Your task to perform on an android device: Show me recent news Image 0: 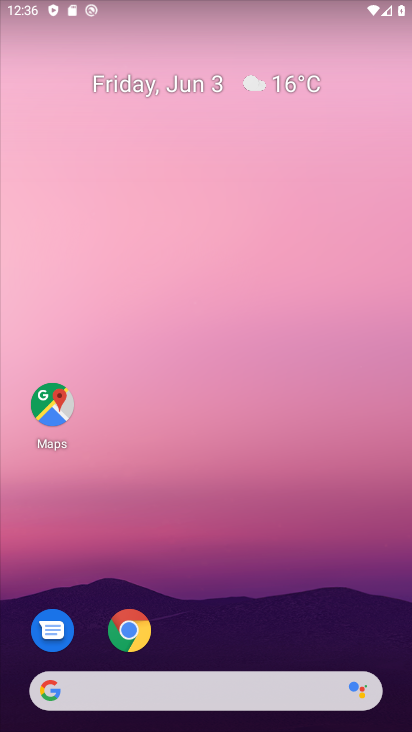
Step 0: click (122, 703)
Your task to perform on an android device: Show me recent news Image 1: 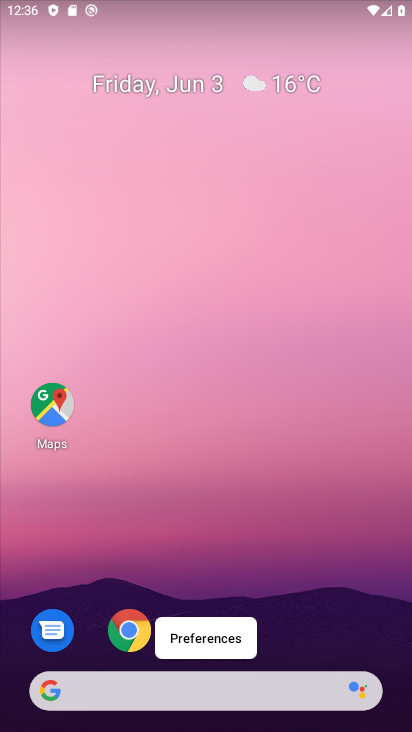
Step 1: click (121, 694)
Your task to perform on an android device: Show me recent news Image 2: 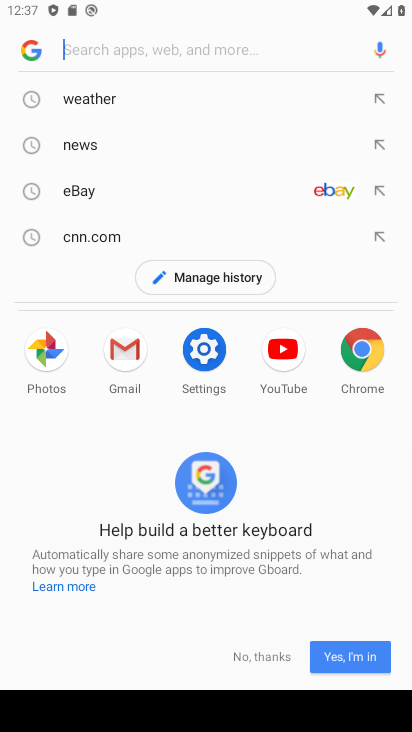
Step 2: click (244, 654)
Your task to perform on an android device: Show me recent news Image 3: 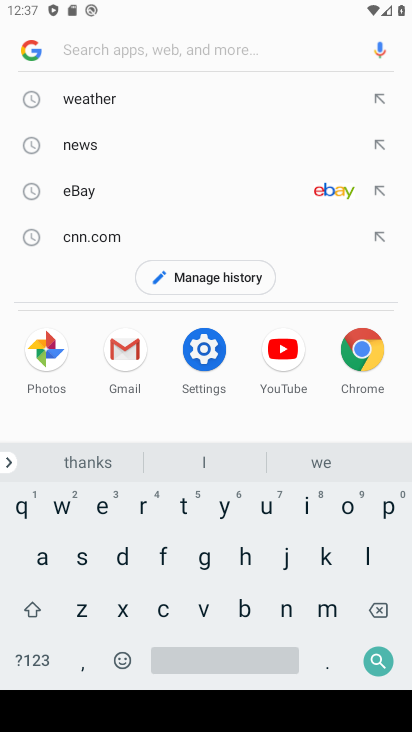
Step 3: click (144, 511)
Your task to perform on an android device: Show me recent news Image 4: 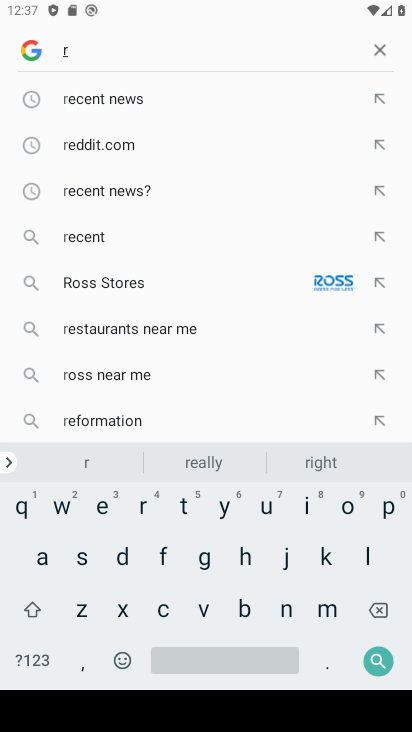
Step 4: click (91, 90)
Your task to perform on an android device: Show me recent news Image 5: 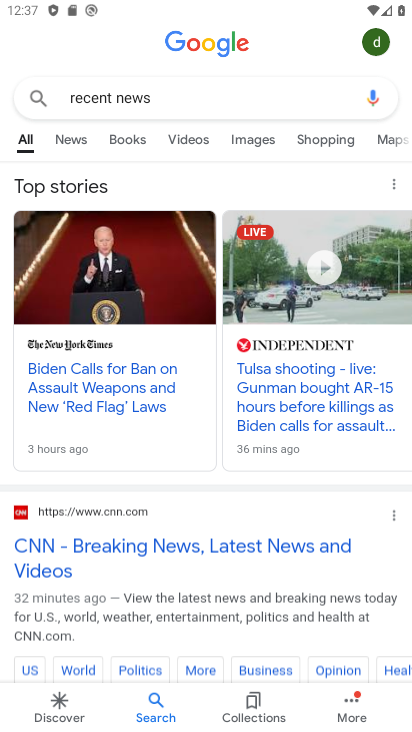
Step 5: task complete